Your task to perform on an android device: Open Google Chrome and open the bookmarks view Image 0: 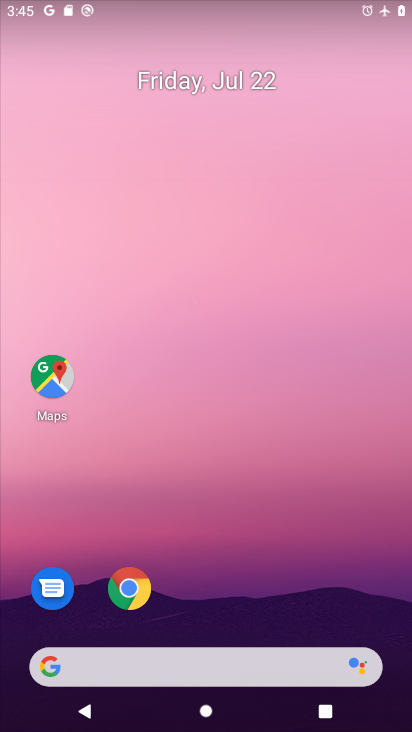
Step 0: drag from (267, 553) to (298, 41)
Your task to perform on an android device: Open Google Chrome and open the bookmarks view Image 1: 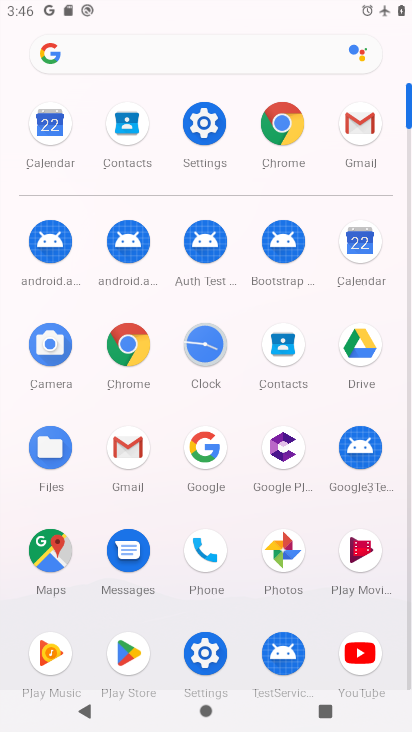
Step 1: click (127, 332)
Your task to perform on an android device: Open Google Chrome and open the bookmarks view Image 2: 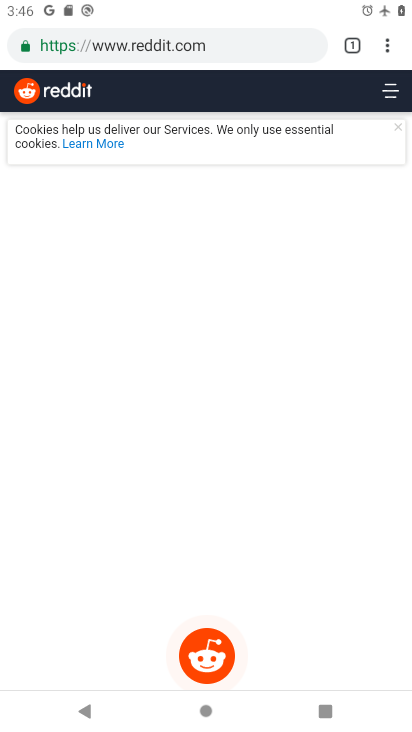
Step 2: task complete